Your task to perform on an android device: toggle pop-ups in chrome Image 0: 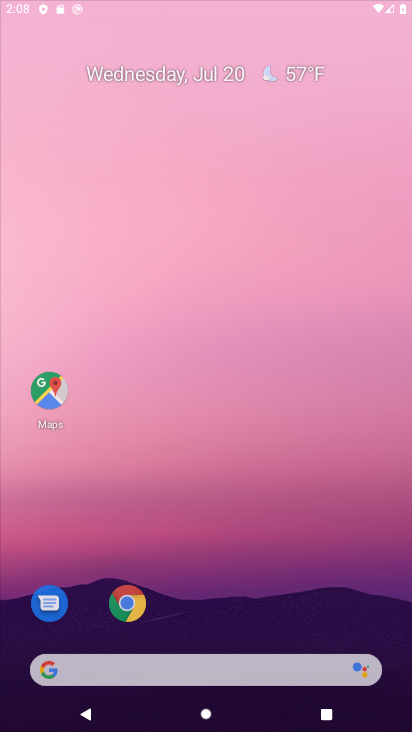
Step 0: press home button
Your task to perform on an android device: toggle pop-ups in chrome Image 1: 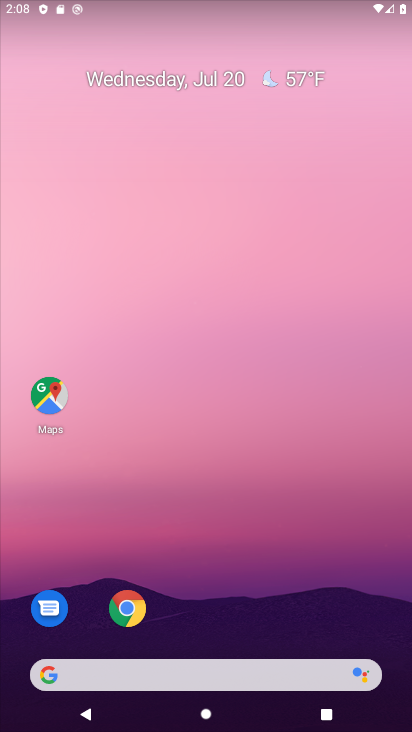
Step 1: click (120, 597)
Your task to perform on an android device: toggle pop-ups in chrome Image 2: 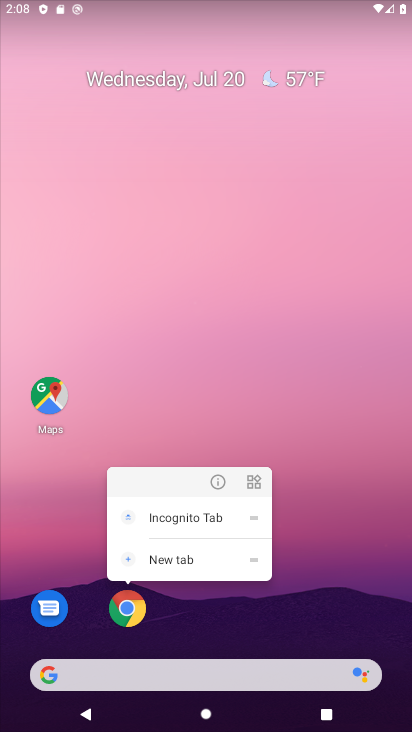
Step 2: click (120, 608)
Your task to perform on an android device: toggle pop-ups in chrome Image 3: 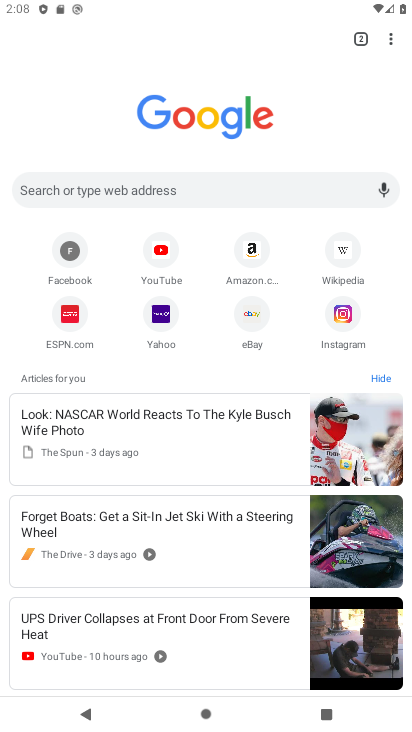
Step 3: click (388, 43)
Your task to perform on an android device: toggle pop-ups in chrome Image 4: 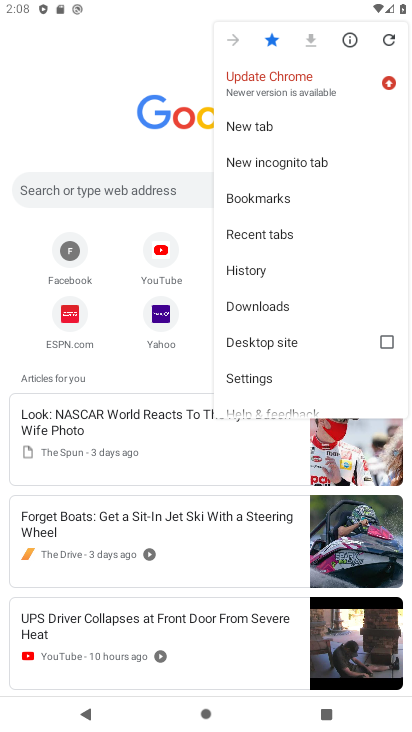
Step 4: click (257, 378)
Your task to perform on an android device: toggle pop-ups in chrome Image 5: 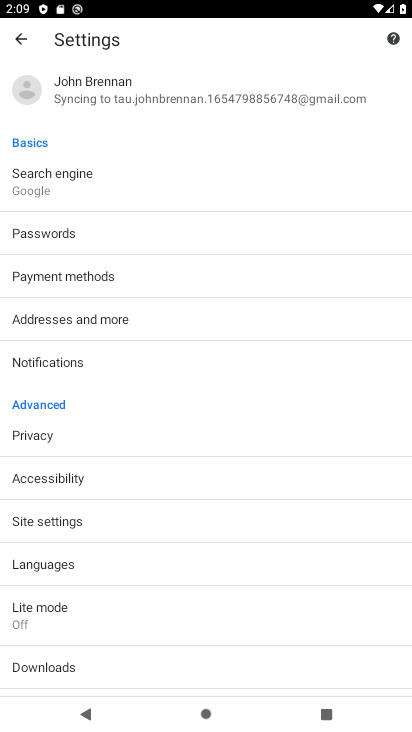
Step 5: click (74, 518)
Your task to perform on an android device: toggle pop-ups in chrome Image 6: 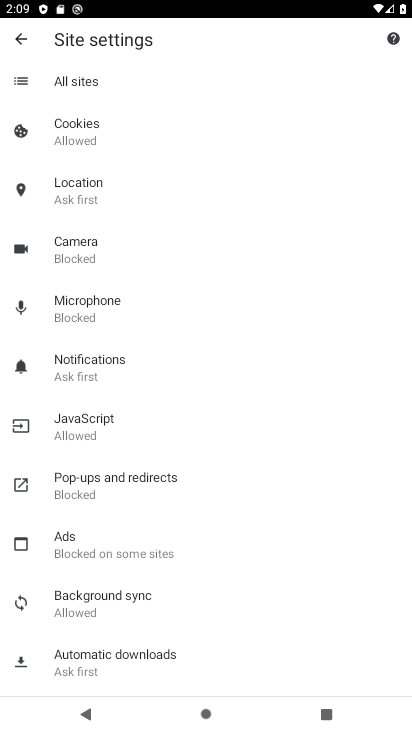
Step 6: click (120, 476)
Your task to perform on an android device: toggle pop-ups in chrome Image 7: 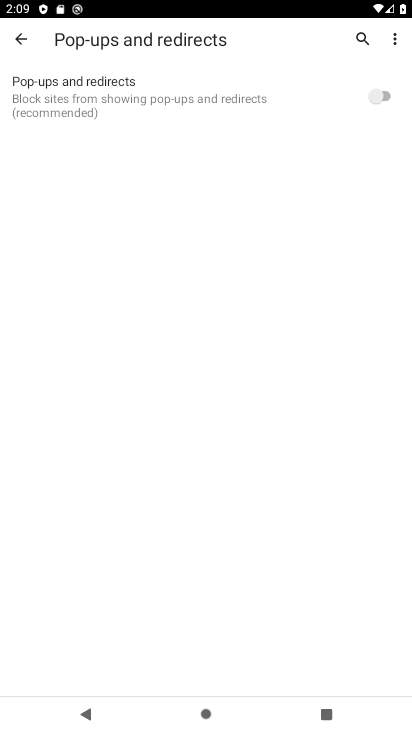
Step 7: click (379, 90)
Your task to perform on an android device: toggle pop-ups in chrome Image 8: 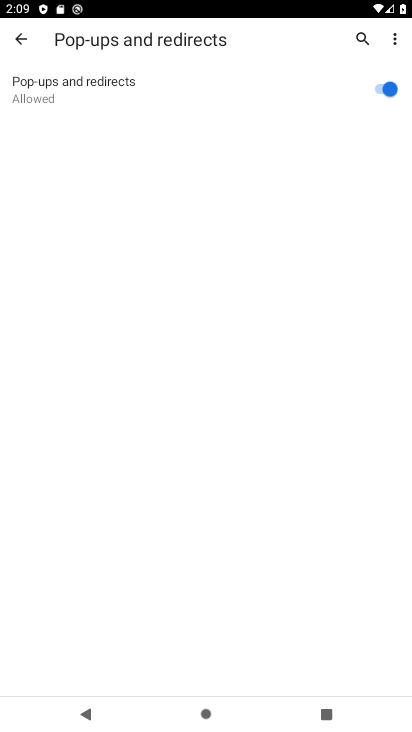
Step 8: task complete